Your task to perform on an android device: Open Reddit.com Image 0: 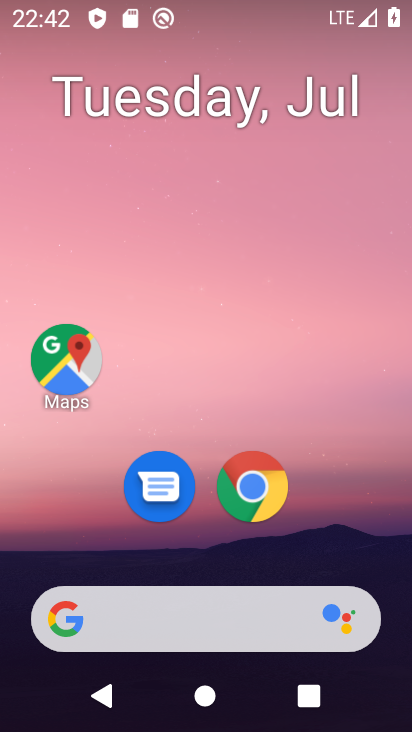
Step 0: drag from (344, 530) to (348, 109)
Your task to perform on an android device: Open Reddit.com Image 1: 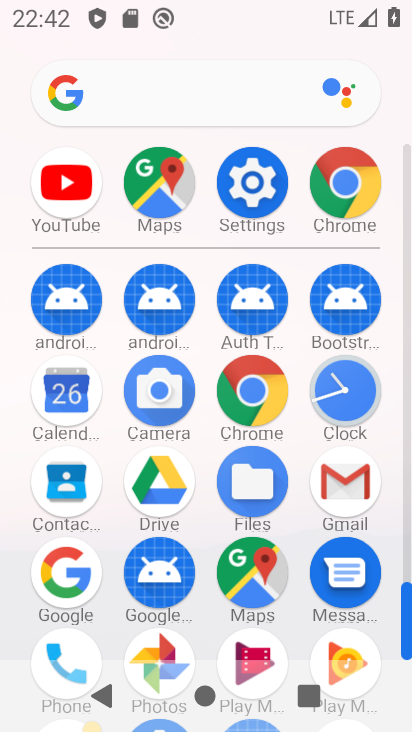
Step 1: click (248, 389)
Your task to perform on an android device: Open Reddit.com Image 2: 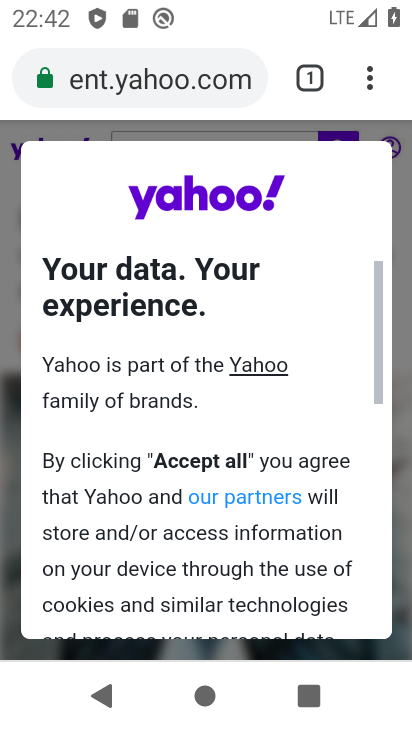
Step 2: click (193, 85)
Your task to perform on an android device: Open Reddit.com Image 3: 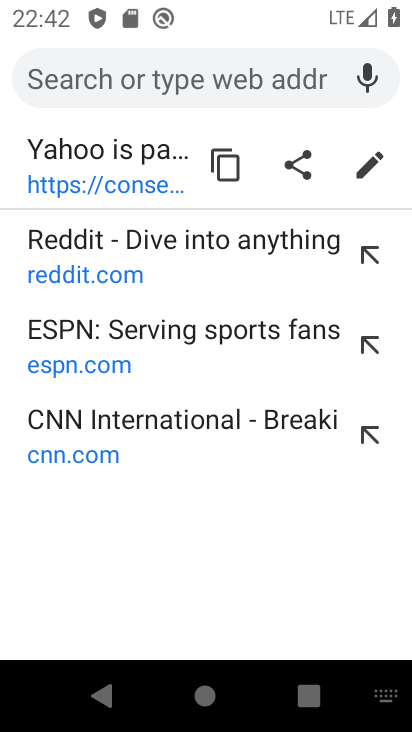
Step 3: type "reddit.com"
Your task to perform on an android device: Open Reddit.com Image 4: 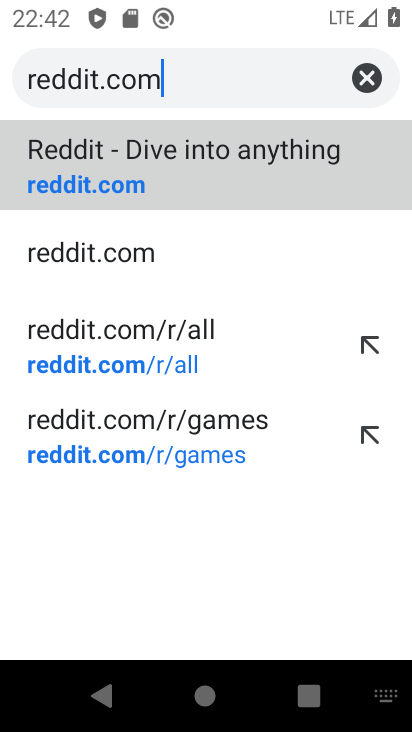
Step 4: click (255, 167)
Your task to perform on an android device: Open Reddit.com Image 5: 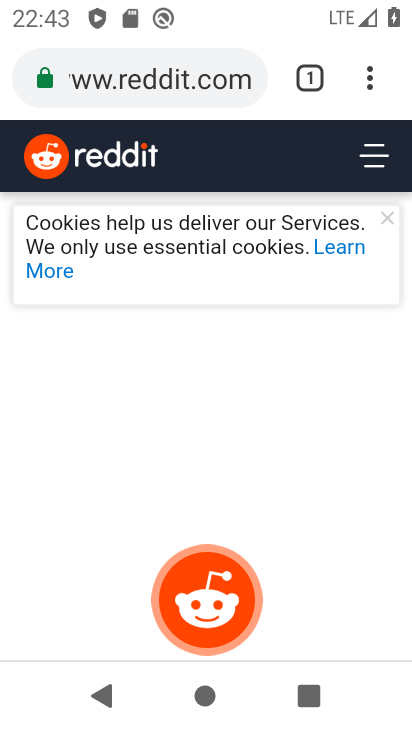
Step 5: task complete